Your task to perform on an android device: Open Yahoo.com Image 0: 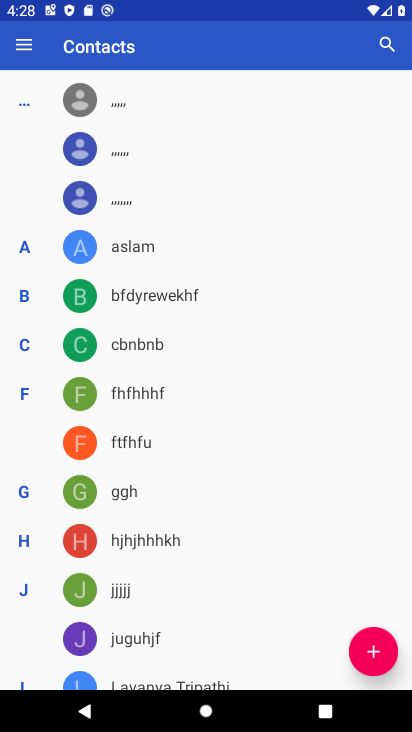
Step 0: press home button
Your task to perform on an android device: Open Yahoo.com Image 1: 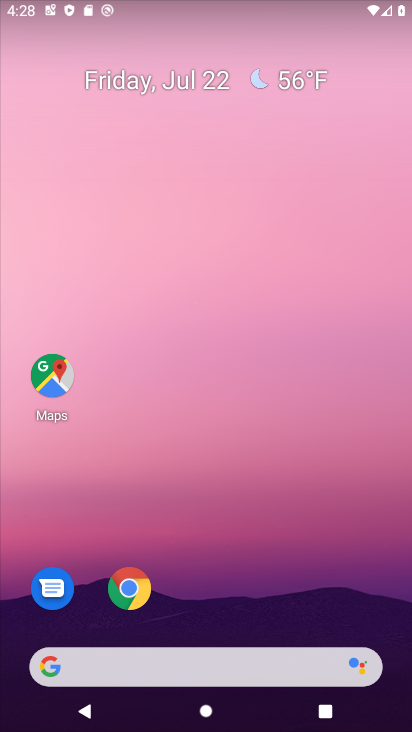
Step 1: drag from (287, 617) to (291, 415)
Your task to perform on an android device: Open Yahoo.com Image 2: 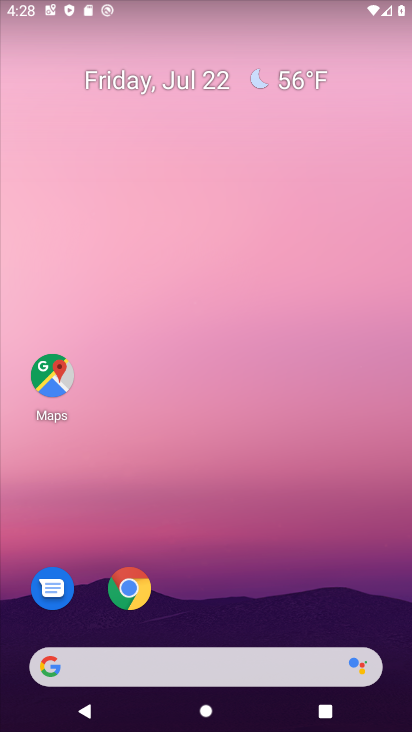
Step 2: drag from (246, 596) to (214, 127)
Your task to perform on an android device: Open Yahoo.com Image 3: 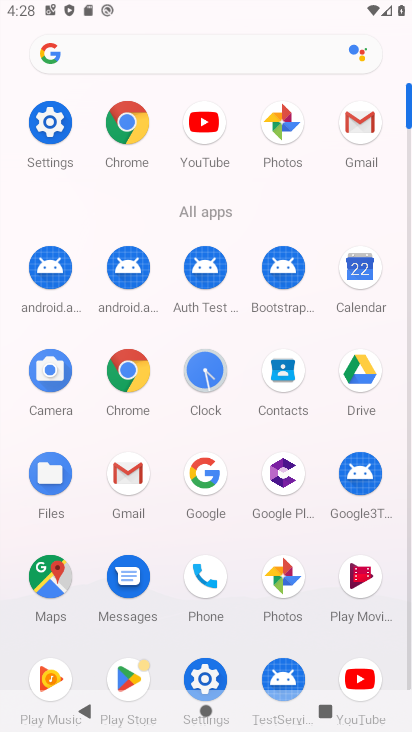
Step 3: click (129, 153)
Your task to perform on an android device: Open Yahoo.com Image 4: 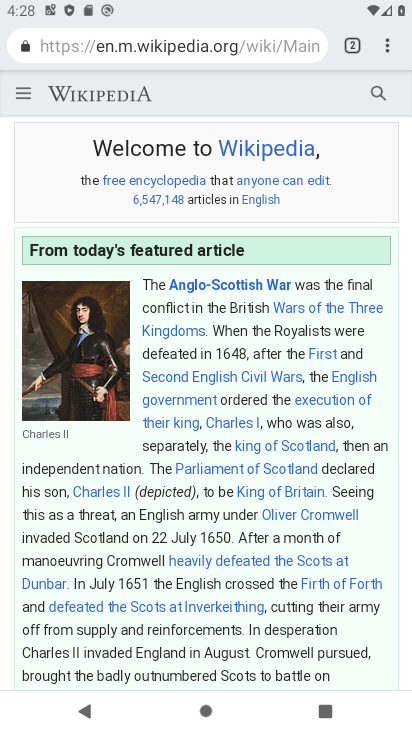
Step 4: click (362, 39)
Your task to perform on an android device: Open Yahoo.com Image 5: 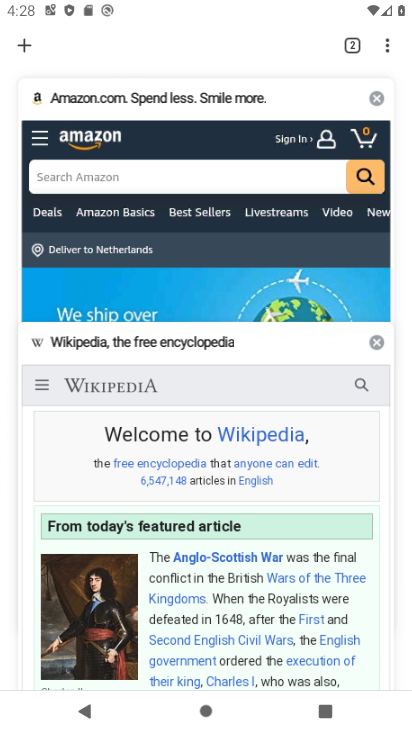
Step 5: click (19, 43)
Your task to perform on an android device: Open Yahoo.com Image 6: 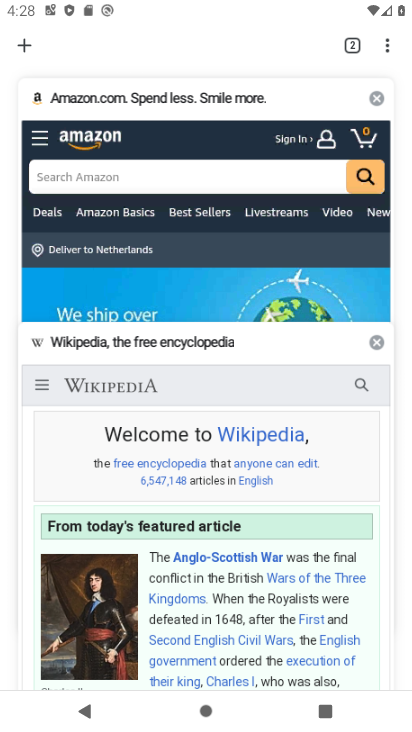
Step 6: click (32, 44)
Your task to perform on an android device: Open Yahoo.com Image 7: 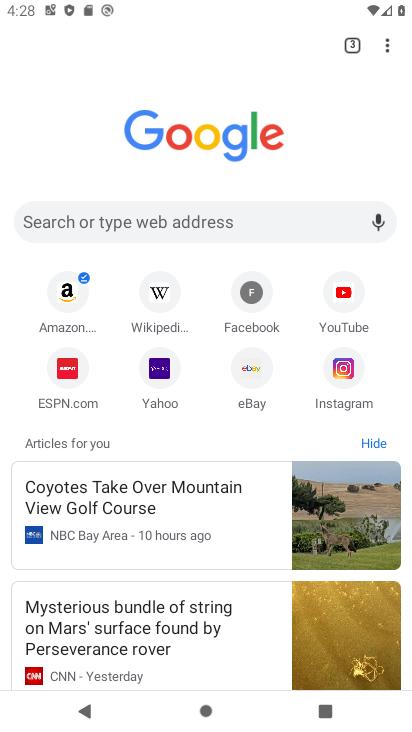
Step 7: click (145, 369)
Your task to perform on an android device: Open Yahoo.com Image 8: 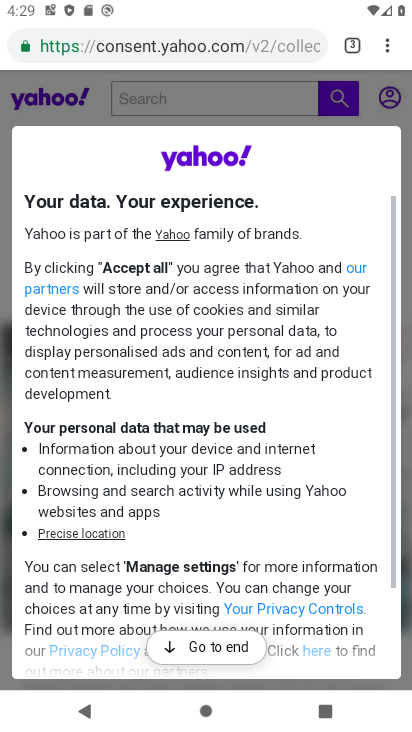
Step 8: task complete